Your task to perform on an android device: toggle data saver in the chrome app Image 0: 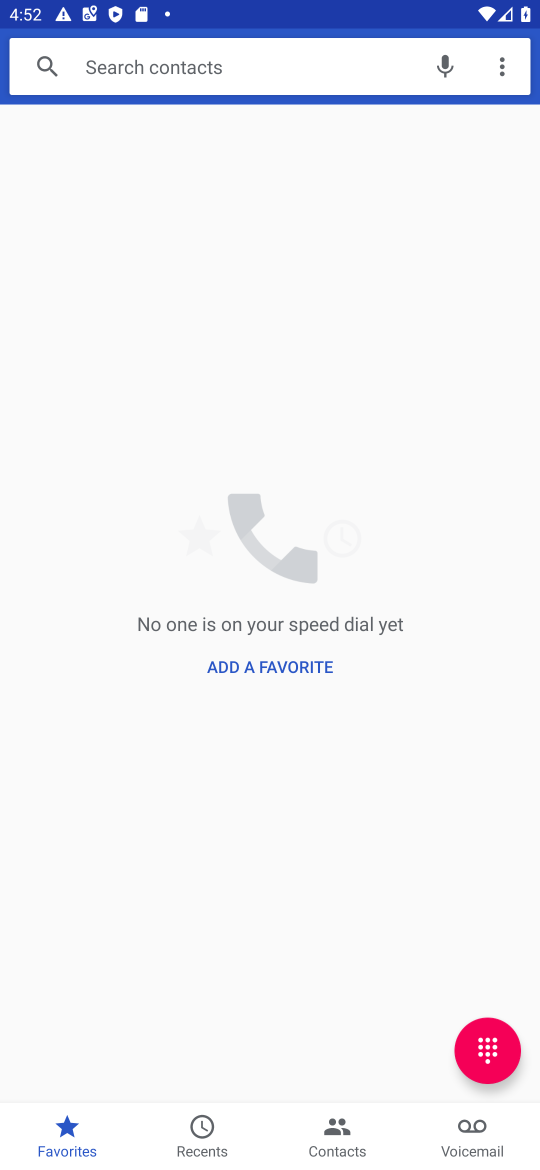
Step 0: press home button
Your task to perform on an android device: toggle data saver in the chrome app Image 1: 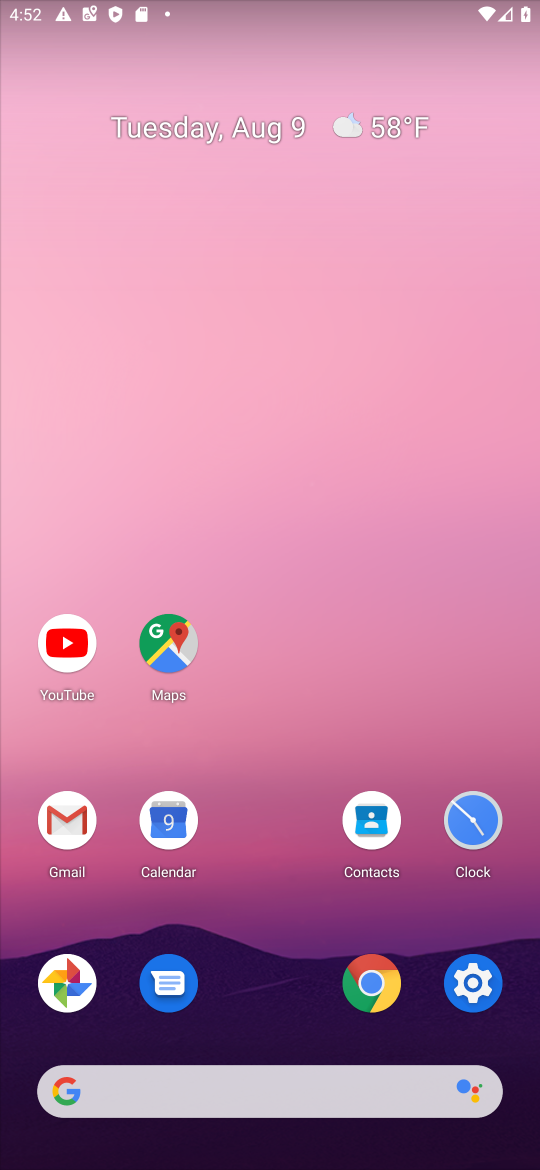
Step 1: click (373, 976)
Your task to perform on an android device: toggle data saver in the chrome app Image 2: 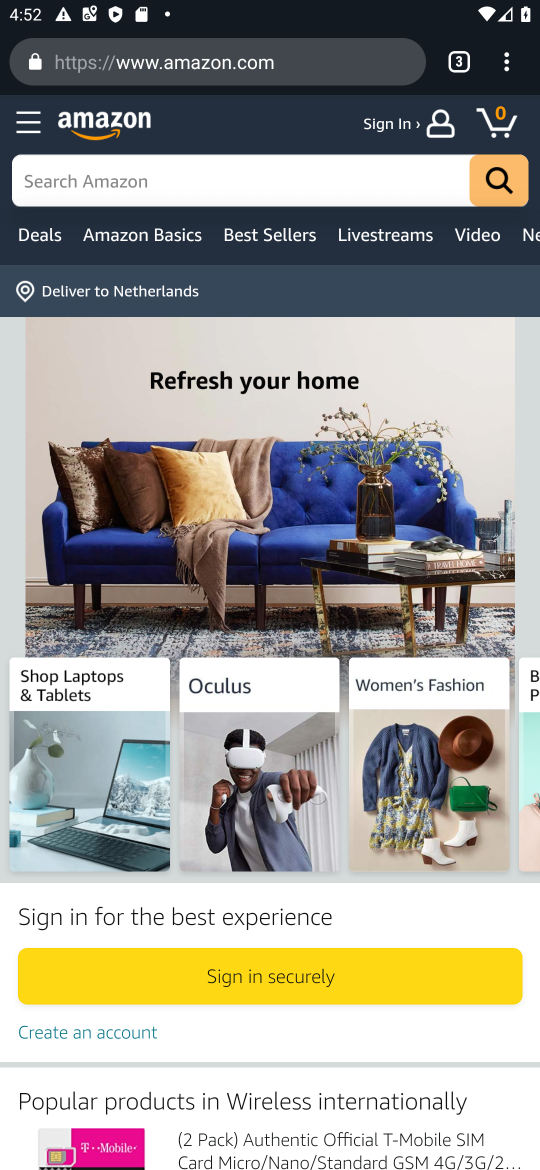
Step 2: click (507, 58)
Your task to perform on an android device: toggle data saver in the chrome app Image 3: 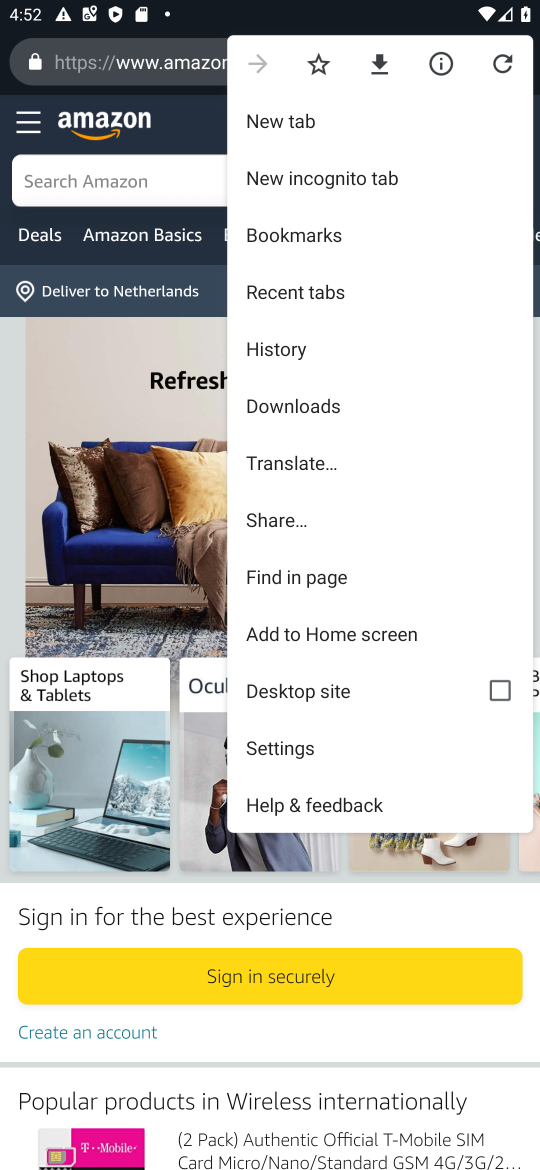
Step 3: click (301, 735)
Your task to perform on an android device: toggle data saver in the chrome app Image 4: 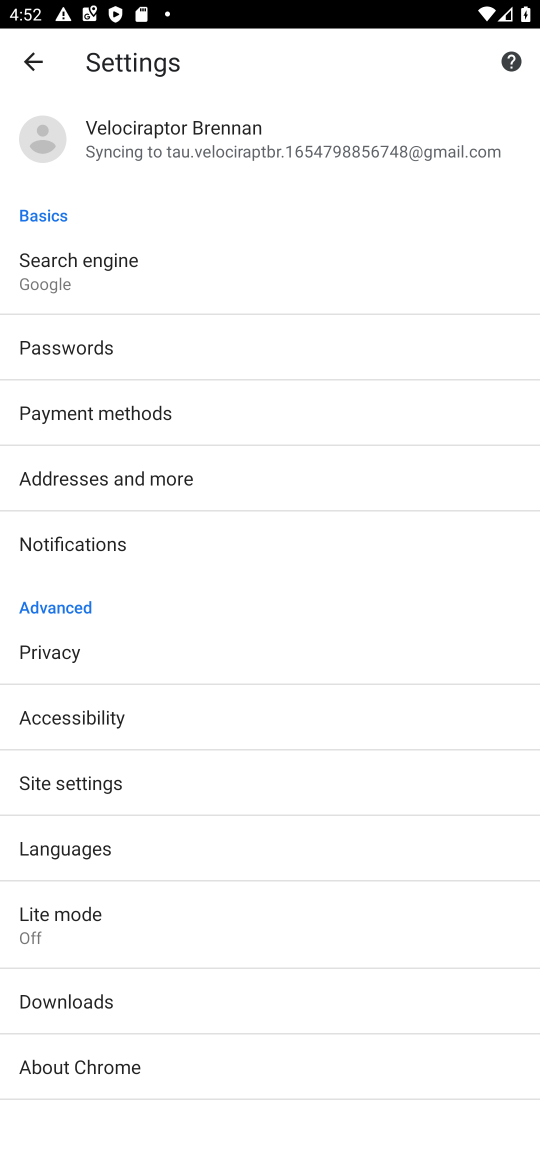
Step 4: click (89, 920)
Your task to perform on an android device: toggle data saver in the chrome app Image 5: 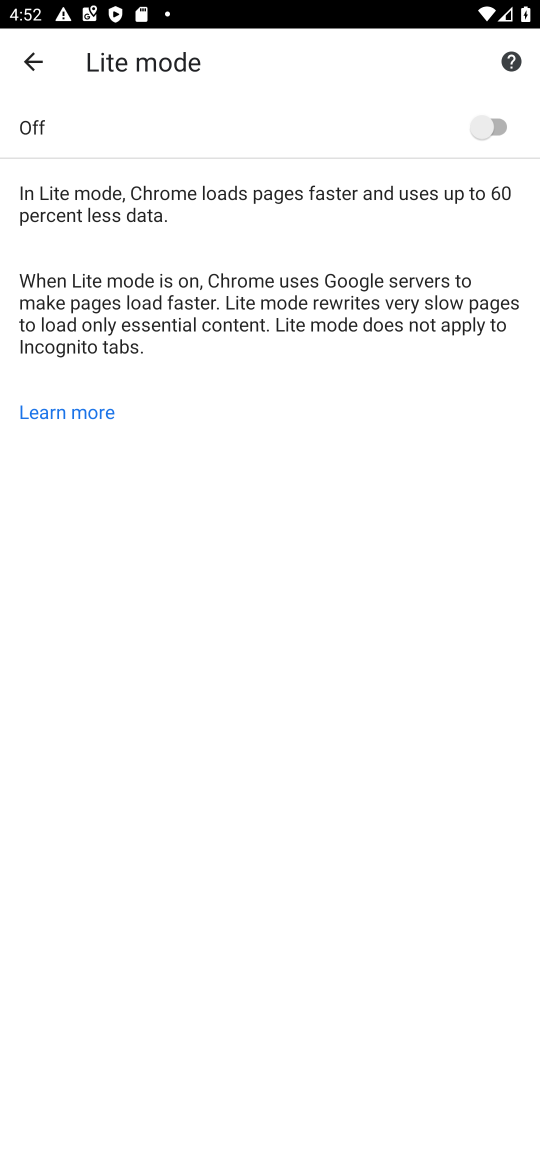
Step 5: click (480, 137)
Your task to perform on an android device: toggle data saver in the chrome app Image 6: 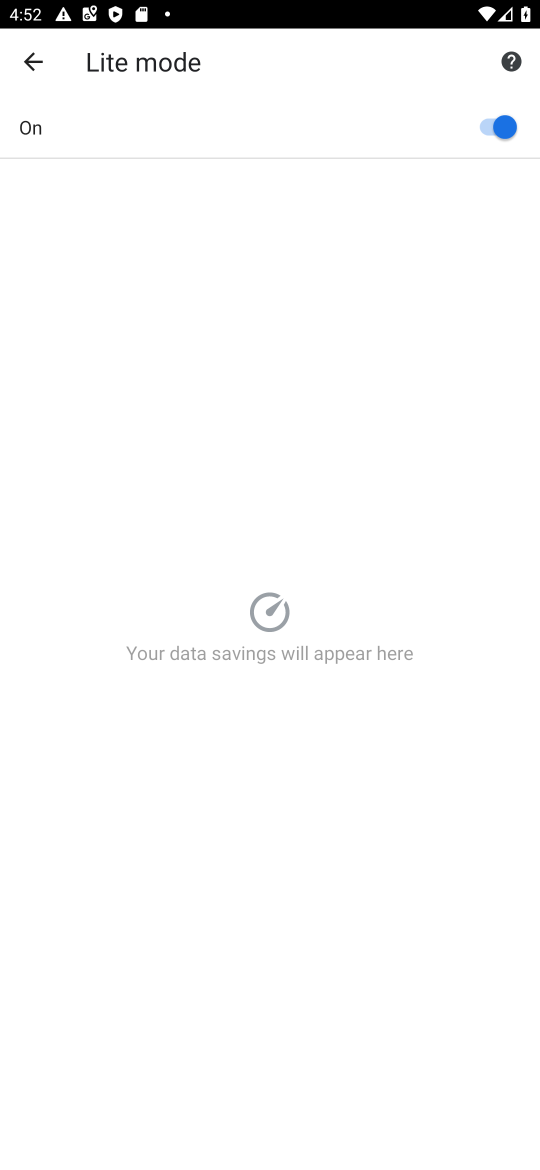
Step 6: task complete